Your task to perform on an android device: turn pop-ups off in chrome Image 0: 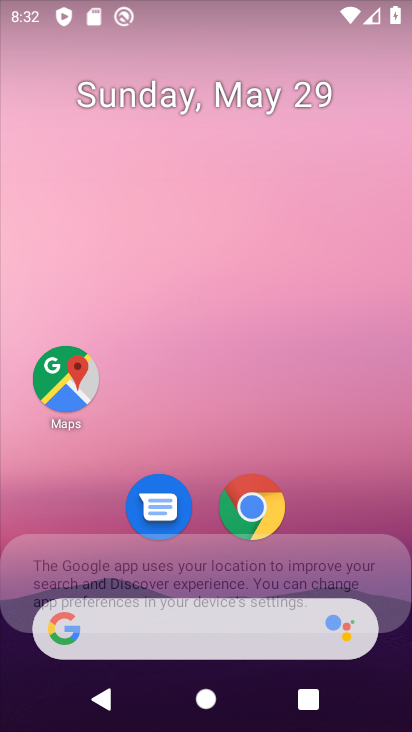
Step 0: drag from (334, 555) to (406, 169)
Your task to perform on an android device: turn pop-ups off in chrome Image 1: 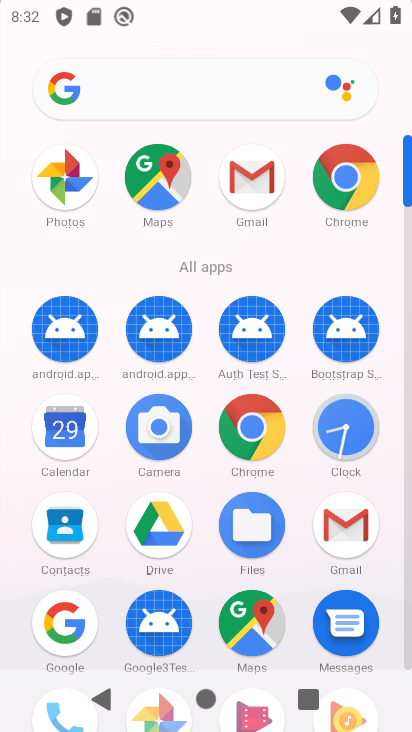
Step 1: drag from (186, 639) to (276, 353)
Your task to perform on an android device: turn pop-ups off in chrome Image 2: 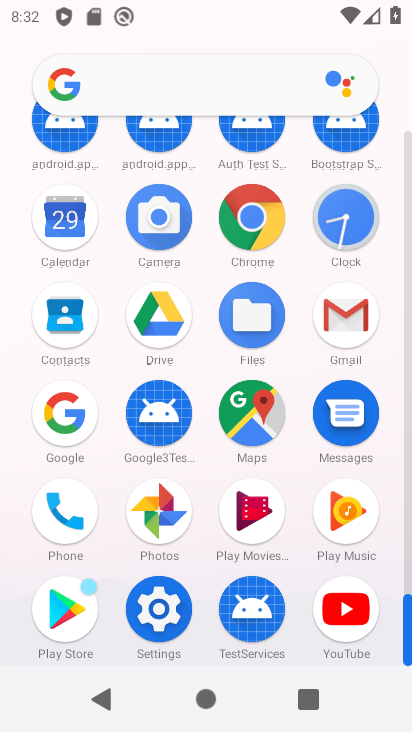
Step 2: click (242, 216)
Your task to perform on an android device: turn pop-ups off in chrome Image 3: 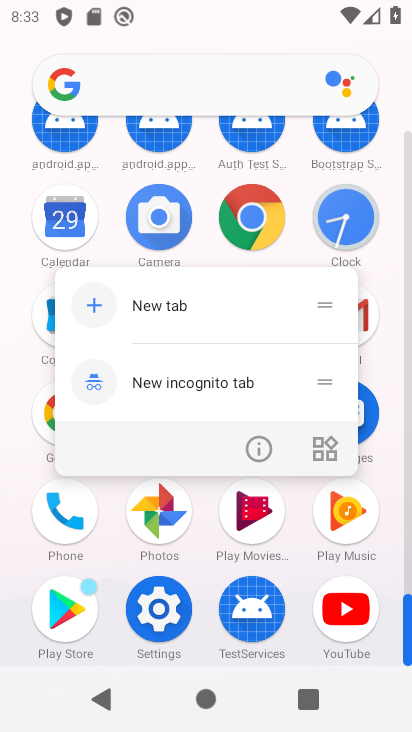
Step 3: click (249, 220)
Your task to perform on an android device: turn pop-ups off in chrome Image 4: 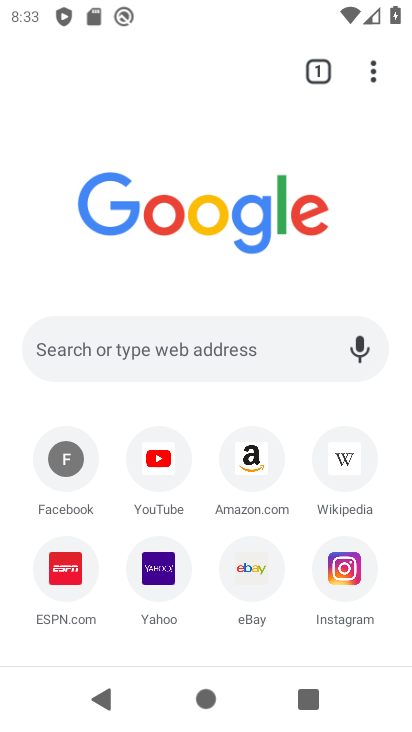
Step 4: drag from (385, 86) to (220, 512)
Your task to perform on an android device: turn pop-ups off in chrome Image 5: 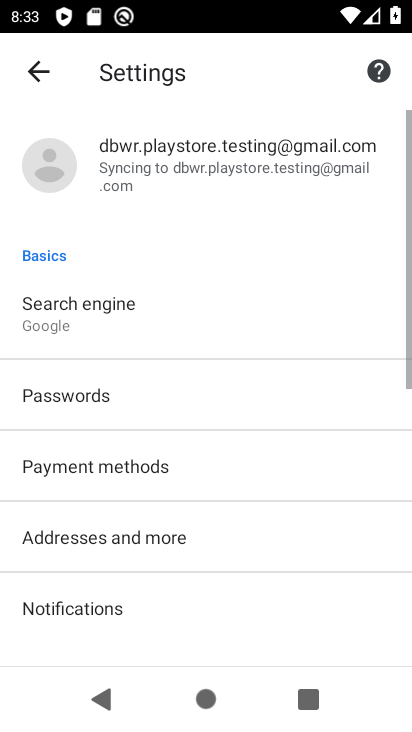
Step 5: drag from (180, 609) to (291, 218)
Your task to perform on an android device: turn pop-ups off in chrome Image 6: 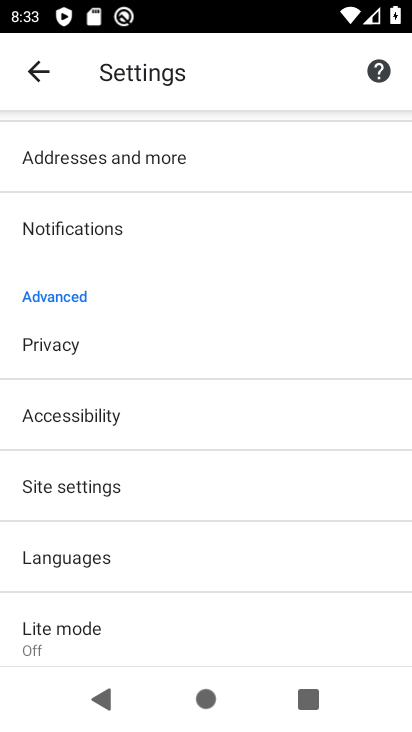
Step 6: drag from (133, 609) to (183, 448)
Your task to perform on an android device: turn pop-ups off in chrome Image 7: 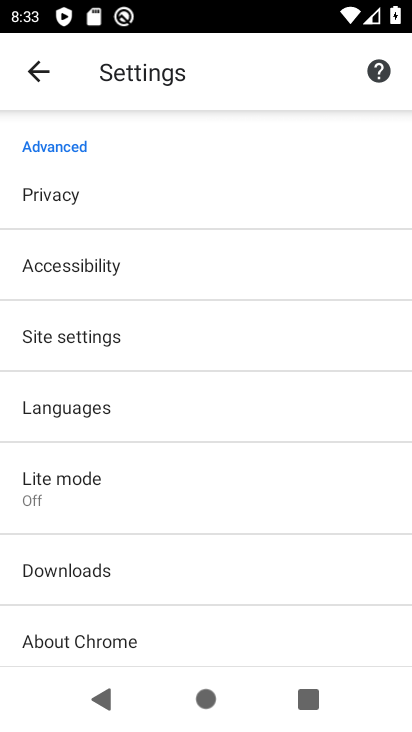
Step 7: click (153, 352)
Your task to perform on an android device: turn pop-ups off in chrome Image 8: 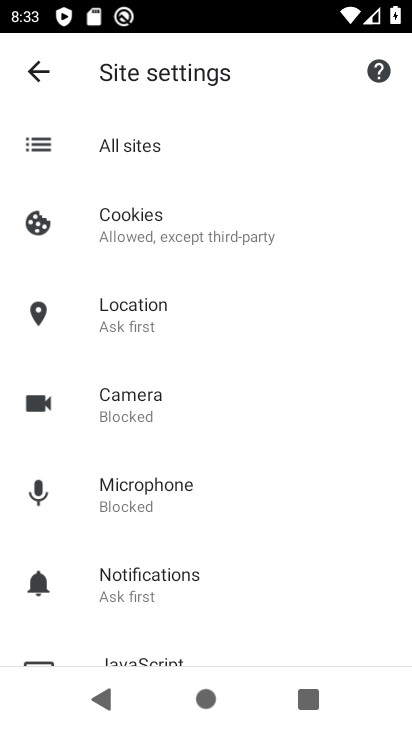
Step 8: drag from (152, 602) to (251, 344)
Your task to perform on an android device: turn pop-ups off in chrome Image 9: 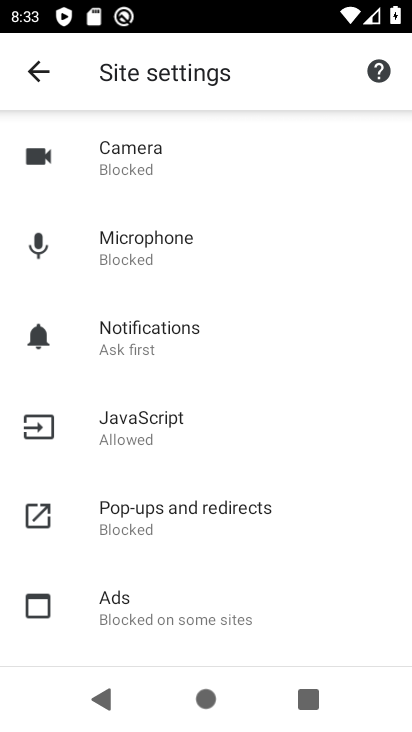
Step 9: drag from (91, 614) to (170, 427)
Your task to perform on an android device: turn pop-ups off in chrome Image 10: 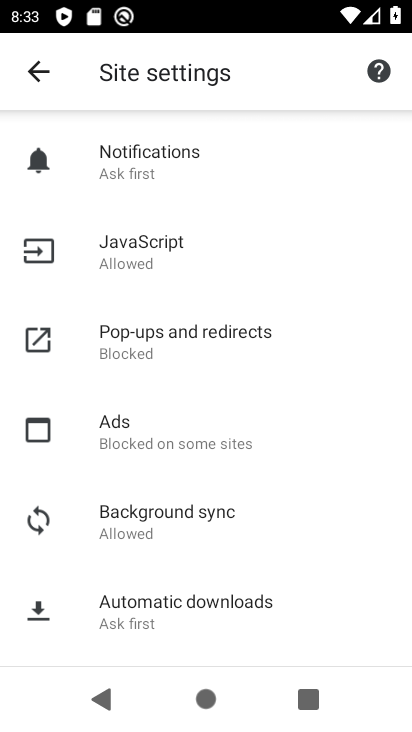
Step 10: click (241, 343)
Your task to perform on an android device: turn pop-ups off in chrome Image 11: 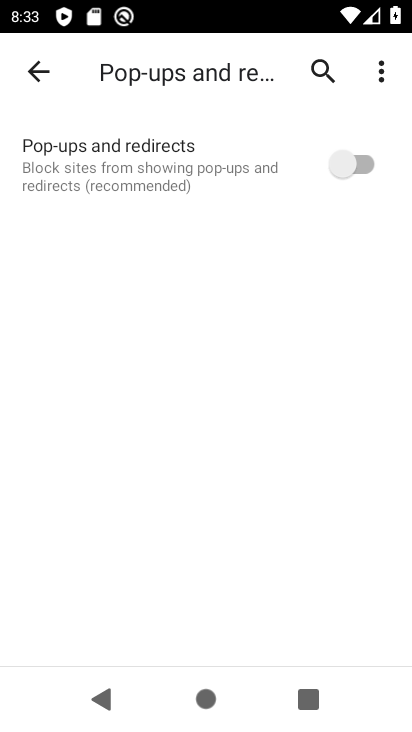
Step 11: task complete